Your task to perform on an android device: Do I have any events tomorrow? Image 0: 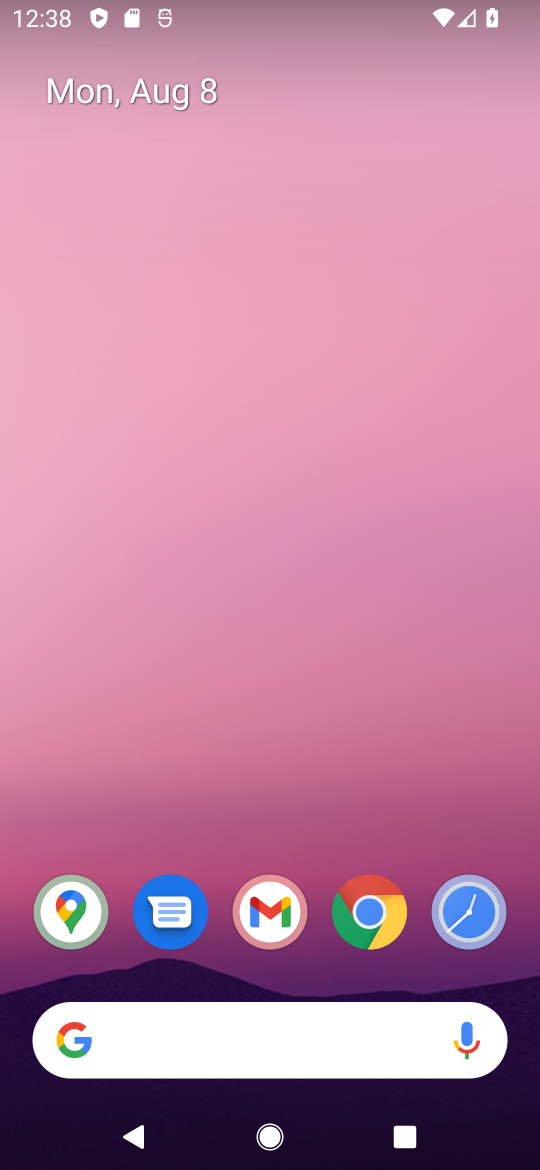
Step 0: drag from (251, 924) to (335, 231)
Your task to perform on an android device: Do I have any events tomorrow? Image 1: 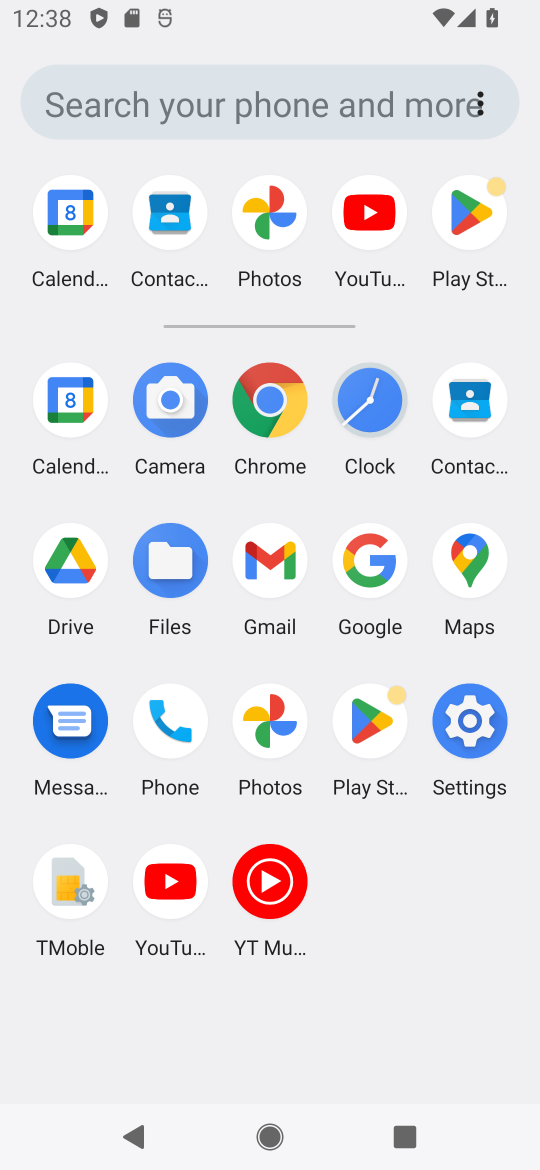
Step 1: click (56, 218)
Your task to perform on an android device: Do I have any events tomorrow? Image 2: 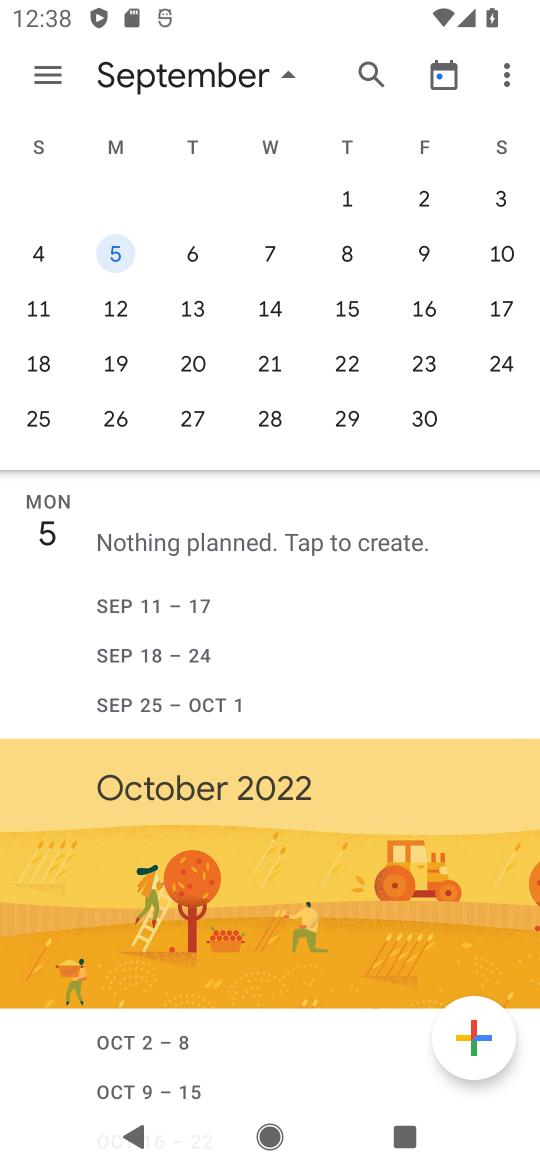
Step 2: drag from (35, 298) to (510, 308)
Your task to perform on an android device: Do I have any events tomorrow? Image 3: 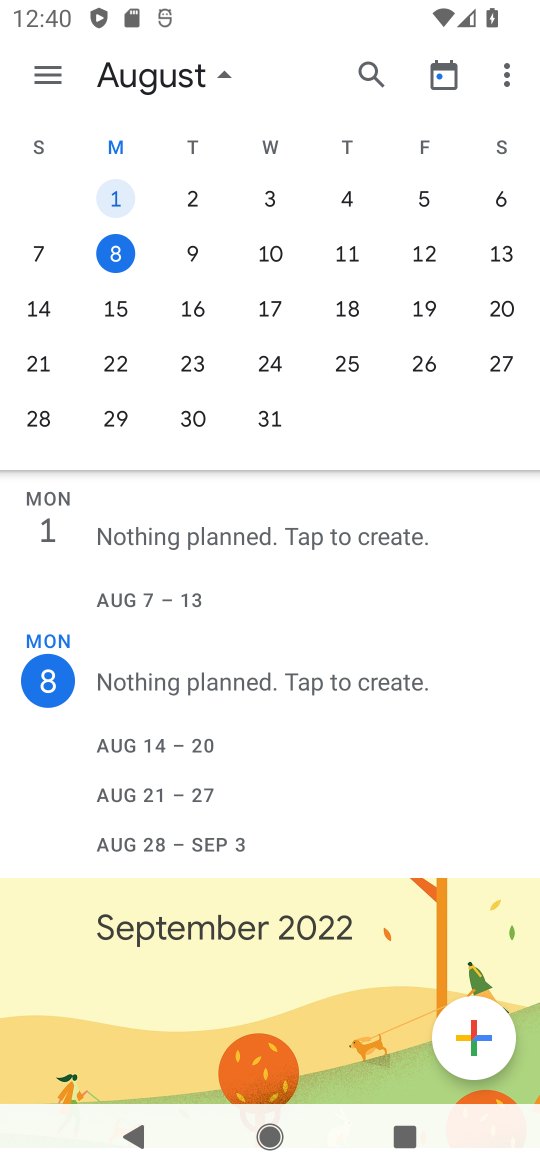
Step 3: click (197, 247)
Your task to perform on an android device: Do I have any events tomorrow? Image 4: 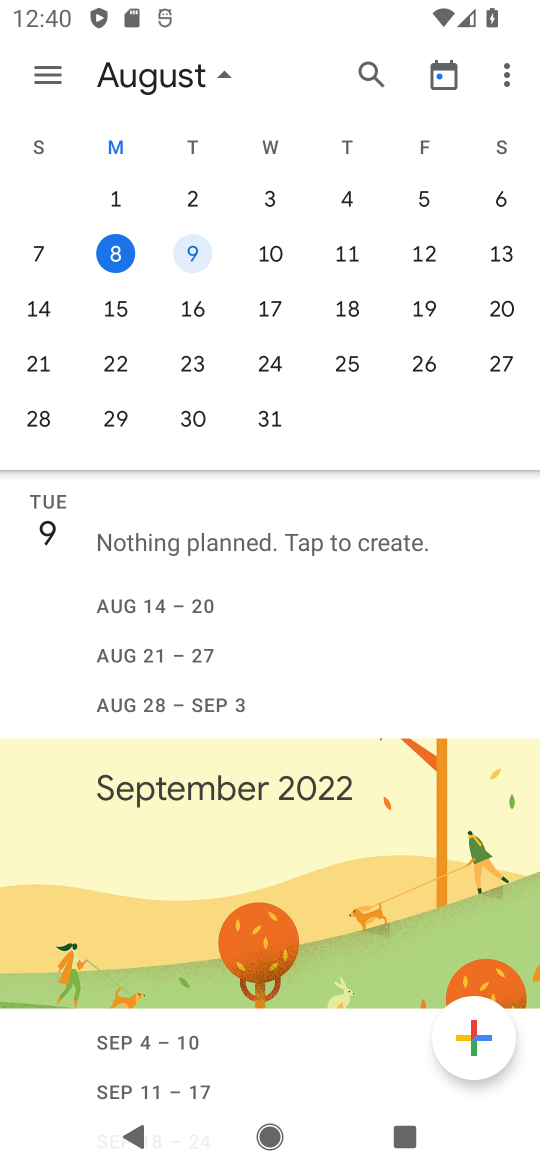
Step 4: task complete